Your task to perform on an android device: set the timer Image 0: 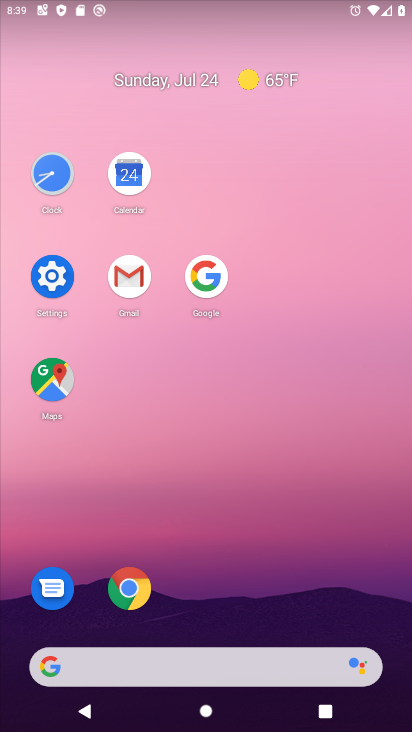
Step 0: click (45, 171)
Your task to perform on an android device: set the timer Image 1: 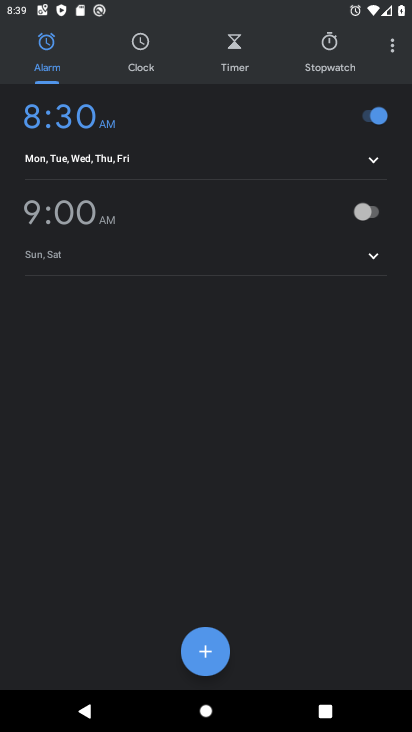
Step 1: click (246, 41)
Your task to perform on an android device: set the timer Image 2: 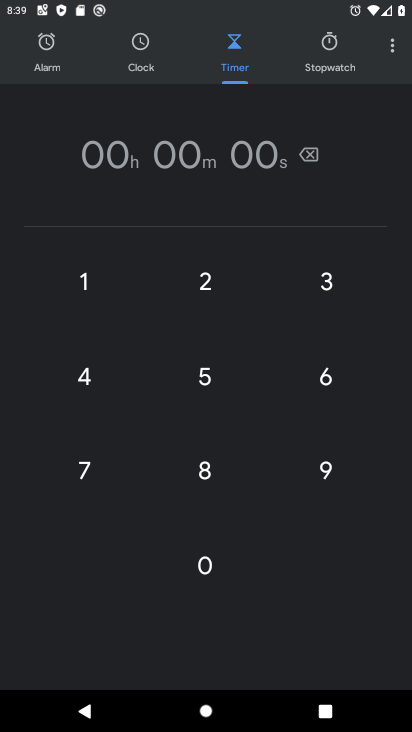
Step 2: click (203, 301)
Your task to perform on an android device: set the timer Image 3: 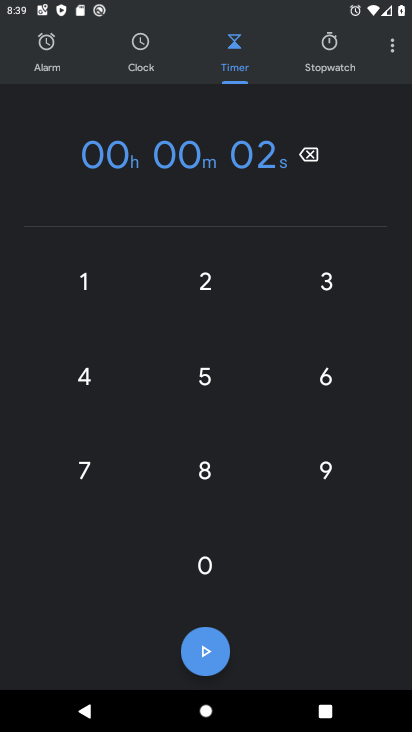
Step 3: click (205, 298)
Your task to perform on an android device: set the timer Image 4: 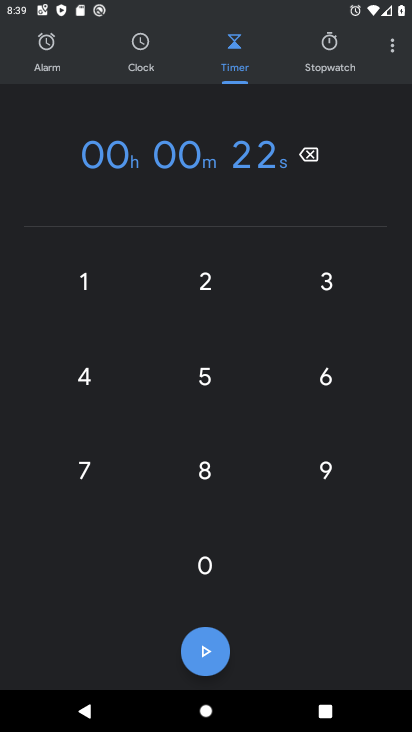
Step 4: click (169, 193)
Your task to perform on an android device: set the timer Image 5: 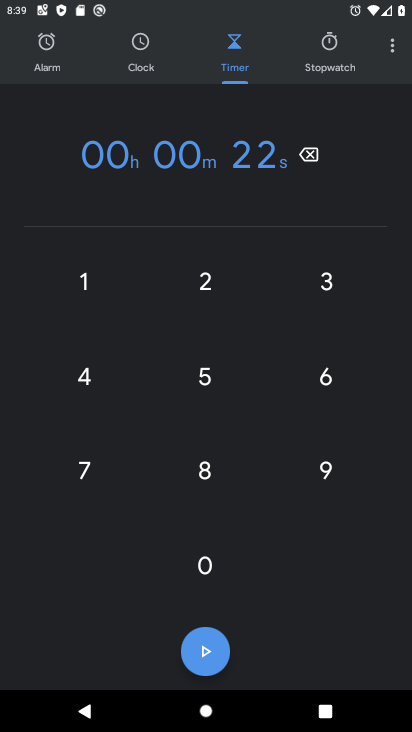
Step 5: click (213, 638)
Your task to perform on an android device: set the timer Image 6: 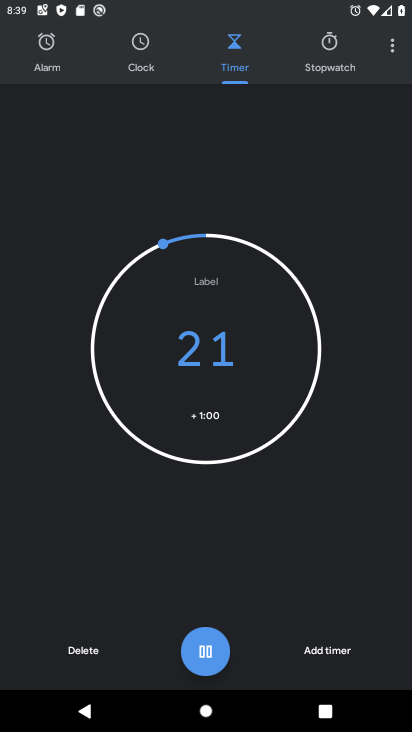
Step 6: task complete